Your task to perform on an android device: add a contact in the contacts app Image 0: 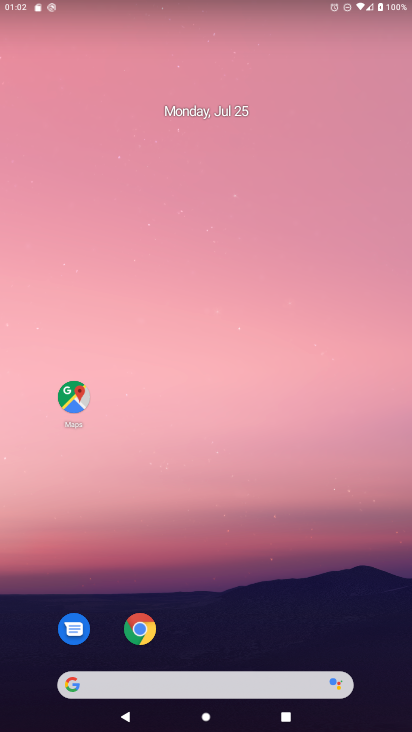
Step 0: drag from (171, 543) to (192, 121)
Your task to perform on an android device: add a contact in the contacts app Image 1: 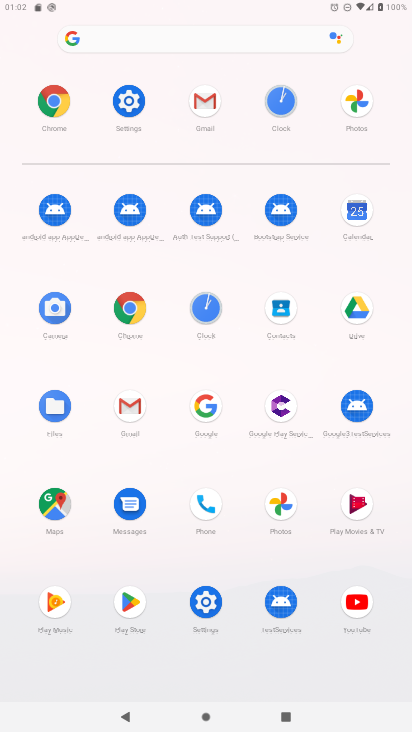
Step 1: click (273, 303)
Your task to perform on an android device: add a contact in the contacts app Image 2: 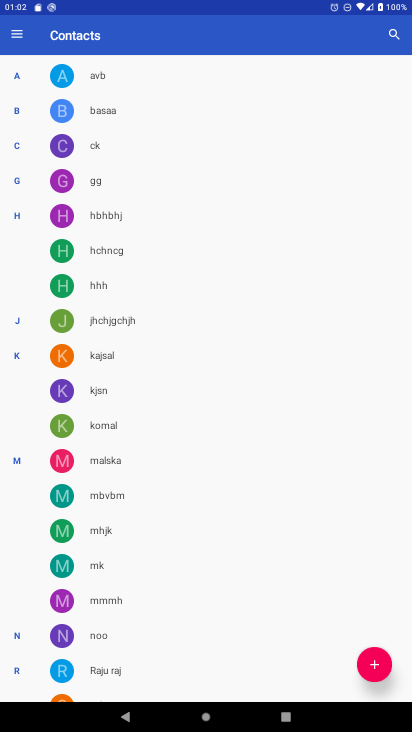
Step 2: click (374, 666)
Your task to perform on an android device: add a contact in the contacts app Image 3: 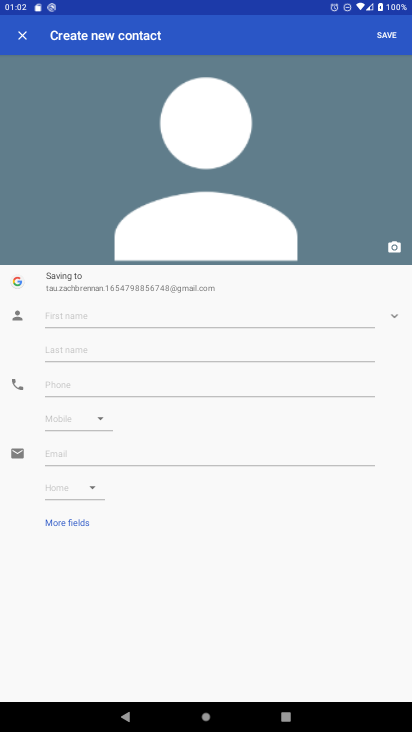
Step 3: click (81, 313)
Your task to perform on an android device: add a contact in the contacts app Image 4: 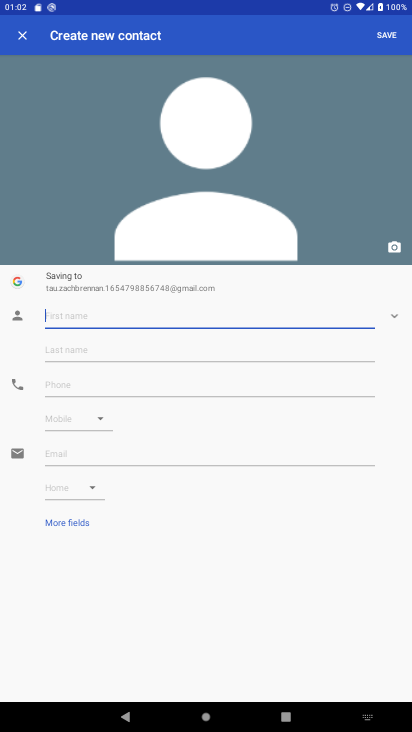
Step 4: type "uuygf"
Your task to perform on an android device: add a contact in the contacts app Image 5: 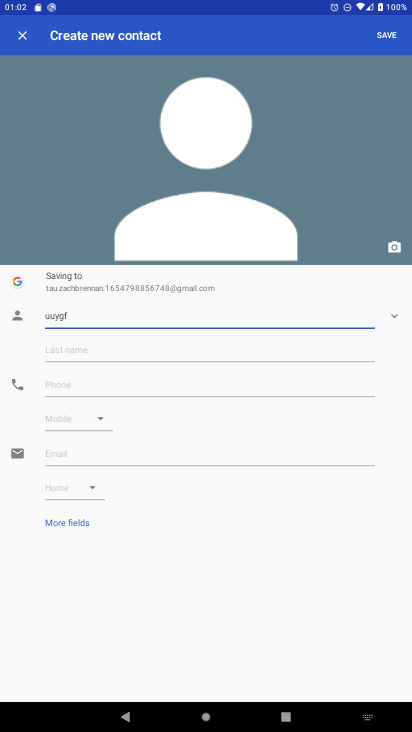
Step 5: click (56, 390)
Your task to perform on an android device: add a contact in the contacts app Image 6: 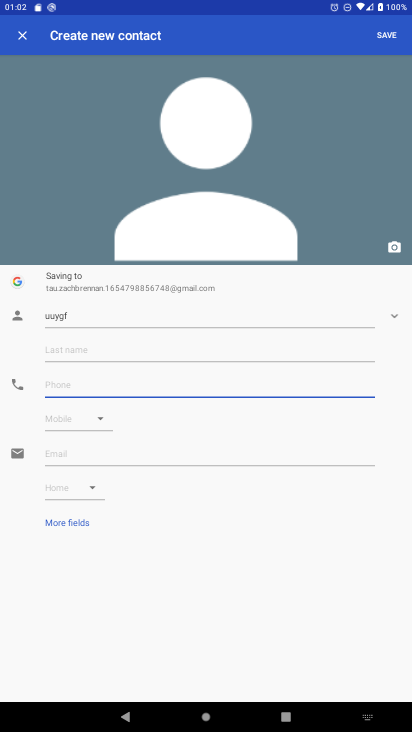
Step 6: type "98786876987"
Your task to perform on an android device: add a contact in the contacts app Image 7: 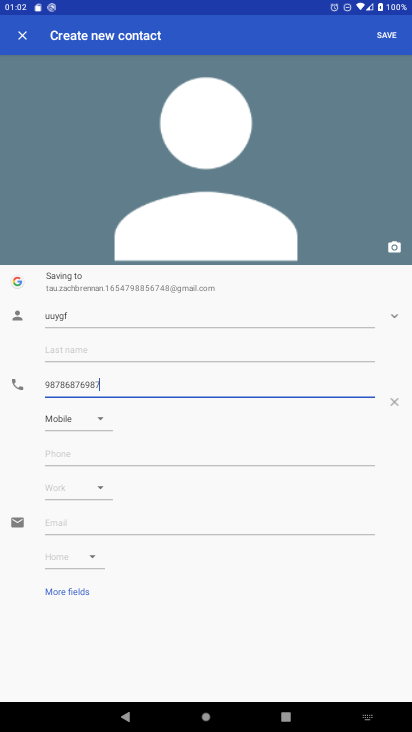
Step 7: click (381, 29)
Your task to perform on an android device: add a contact in the contacts app Image 8: 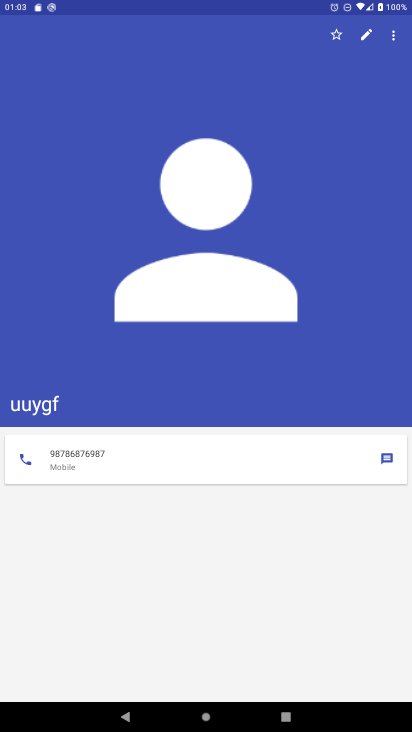
Step 8: task complete